Your task to perform on an android device: turn on the 24-hour format for clock Image 0: 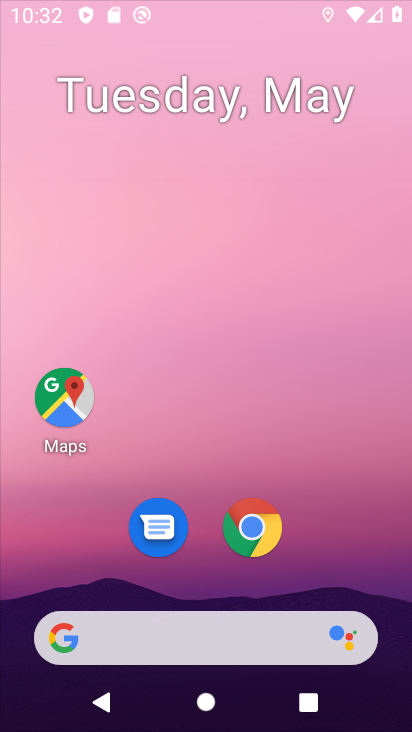
Step 0: click (135, 49)
Your task to perform on an android device: turn on the 24-hour format for clock Image 1: 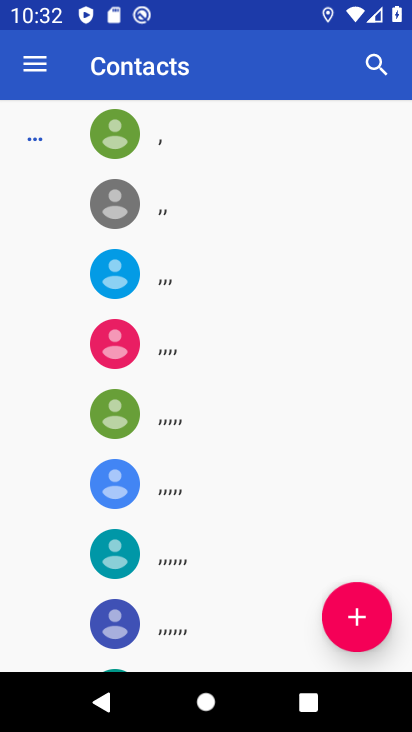
Step 1: press home button
Your task to perform on an android device: turn on the 24-hour format for clock Image 2: 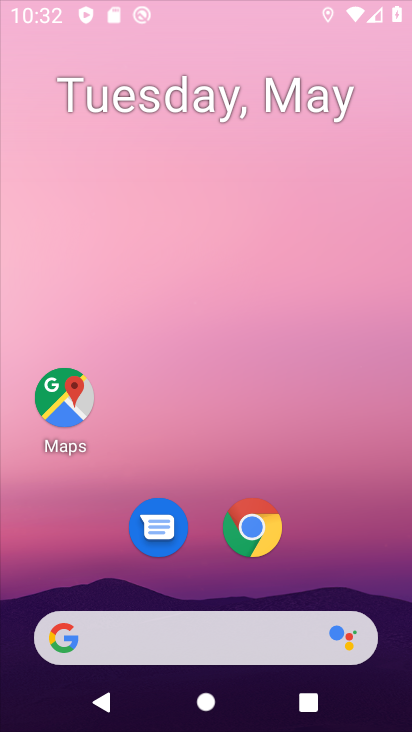
Step 2: drag from (264, 580) to (312, 21)
Your task to perform on an android device: turn on the 24-hour format for clock Image 3: 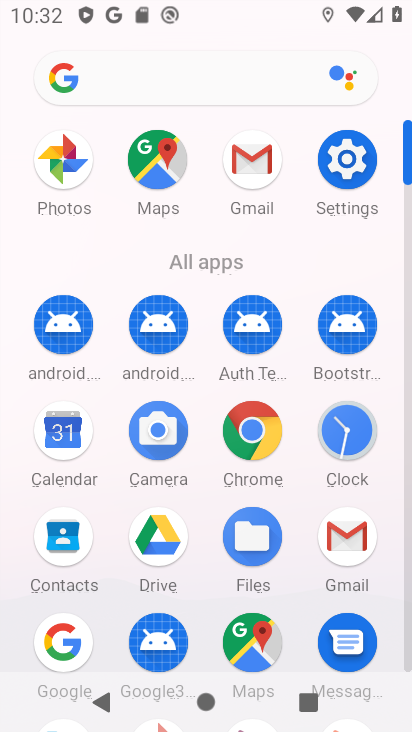
Step 3: click (337, 434)
Your task to perform on an android device: turn on the 24-hour format for clock Image 4: 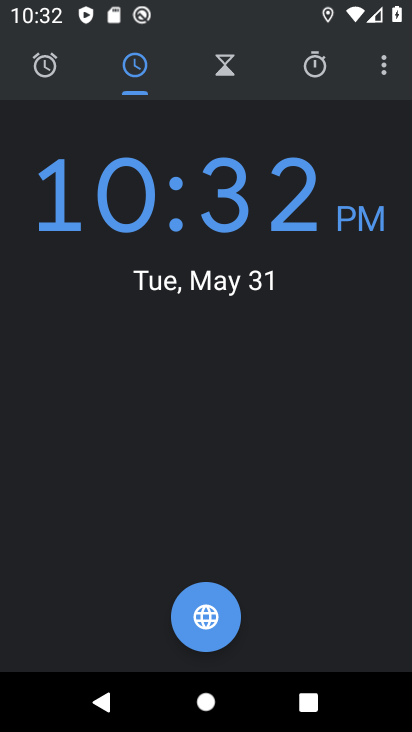
Step 4: drag from (388, 70) to (276, 132)
Your task to perform on an android device: turn on the 24-hour format for clock Image 5: 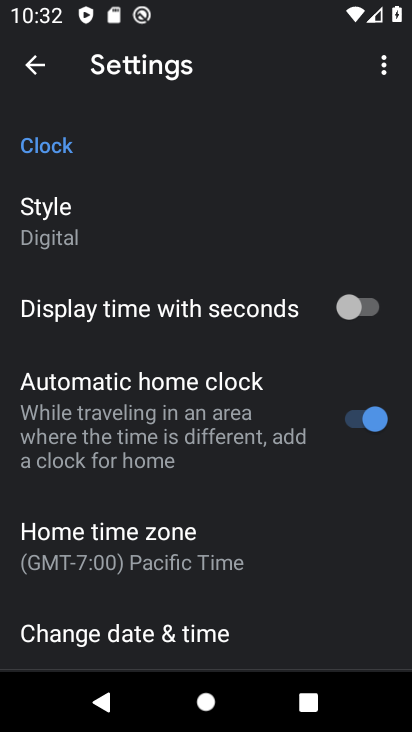
Step 5: click (123, 623)
Your task to perform on an android device: turn on the 24-hour format for clock Image 6: 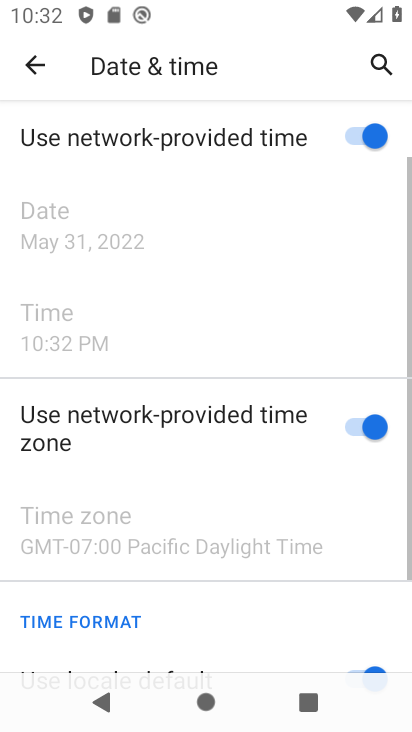
Step 6: drag from (185, 592) to (246, 14)
Your task to perform on an android device: turn on the 24-hour format for clock Image 7: 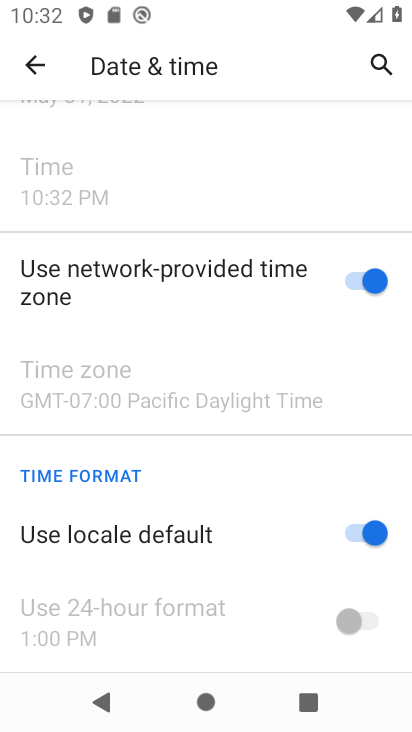
Step 7: click (365, 530)
Your task to perform on an android device: turn on the 24-hour format for clock Image 8: 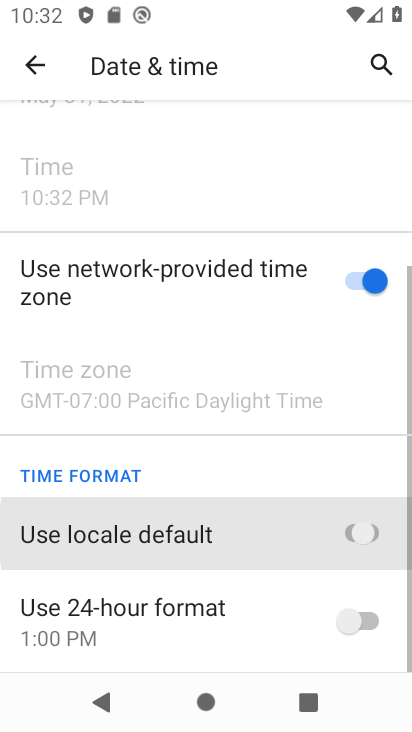
Step 8: click (343, 639)
Your task to perform on an android device: turn on the 24-hour format for clock Image 9: 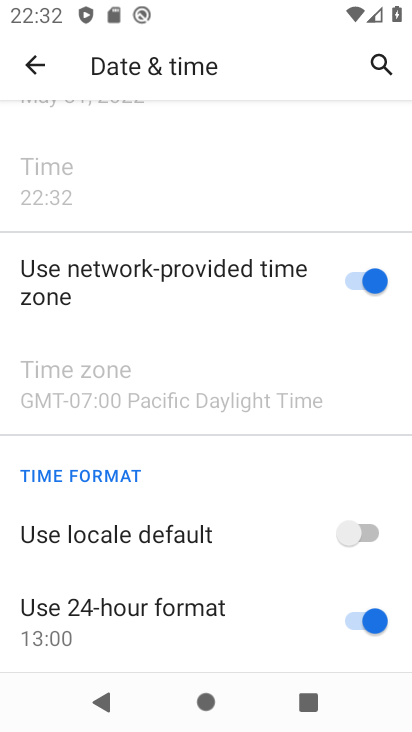
Step 9: task complete